Your task to perform on an android device: Open internet settings Image 0: 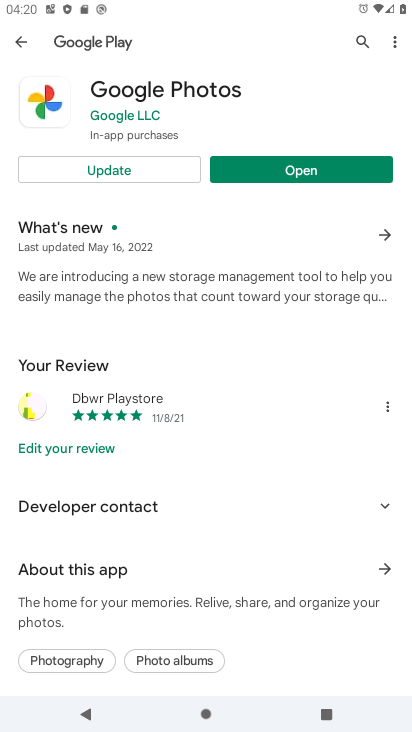
Step 0: drag from (228, 8) to (175, 712)
Your task to perform on an android device: Open internet settings Image 1: 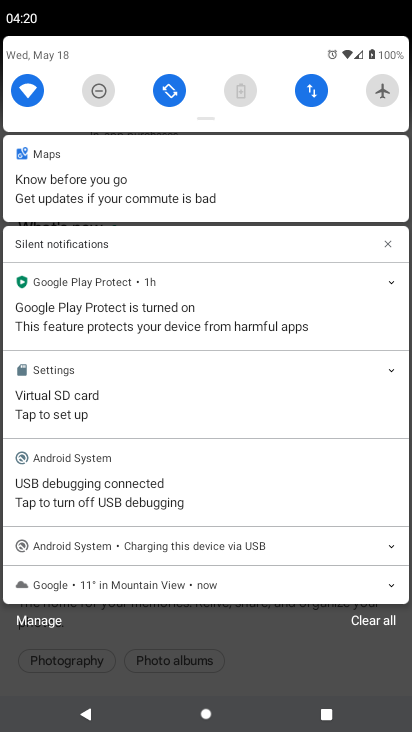
Step 1: click (301, 96)
Your task to perform on an android device: Open internet settings Image 2: 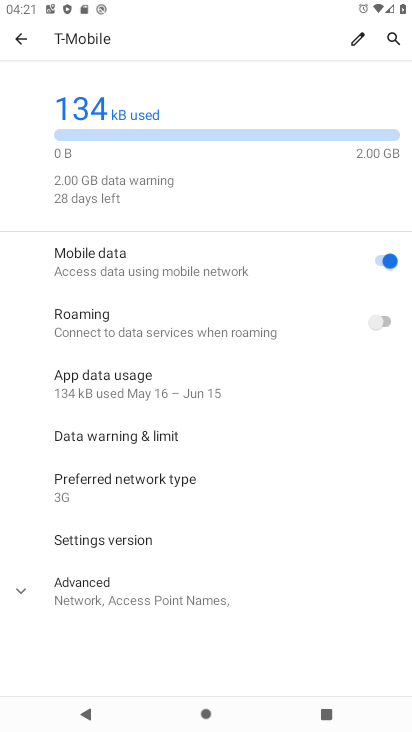
Step 2: task complete